Your task to perform on an android device: Open Google Chrome Image 0: 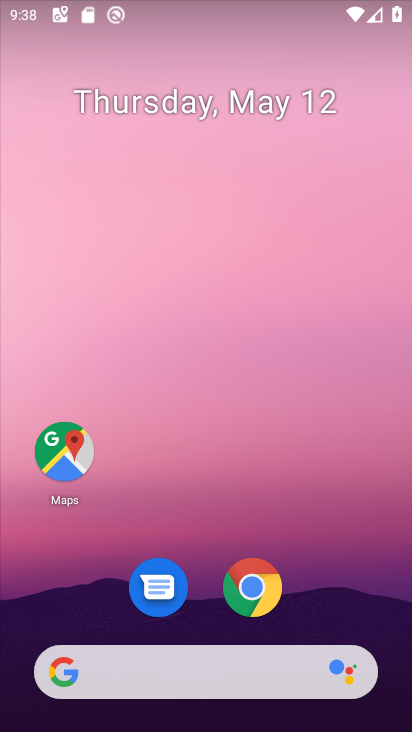
Step 0: drag from (379, 641) to (369, 149)
Your task to perform on an android device: Open Google Chrome Image 1: 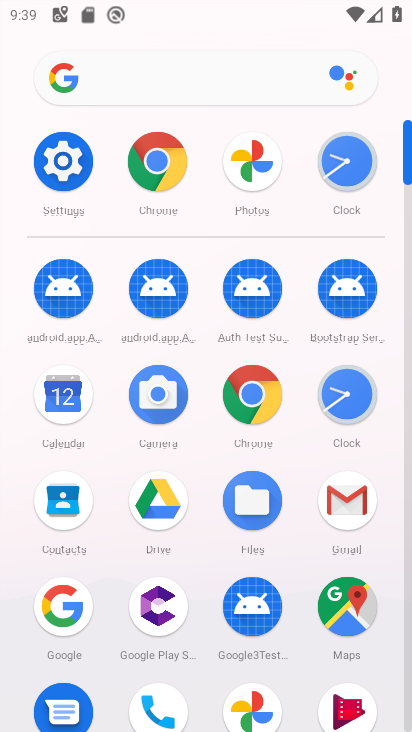
Step 1: click (146, 164)
Your task to perform on an android device: Open Google Chrome Image 2: 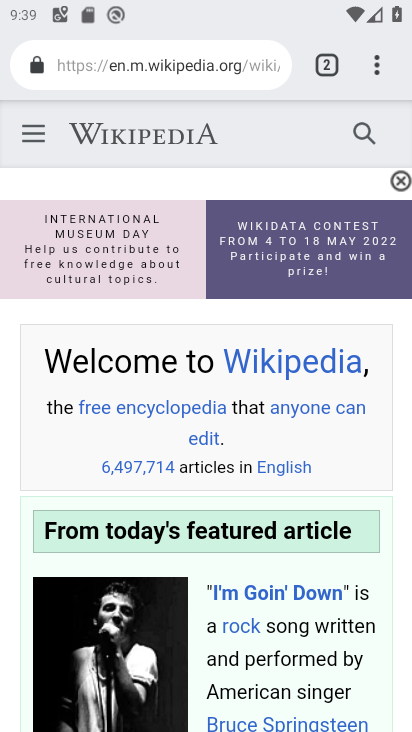
Step 2: task complete